Your task to perform on an android device: read, delete, or share a saved page in the chrome app Image 0: 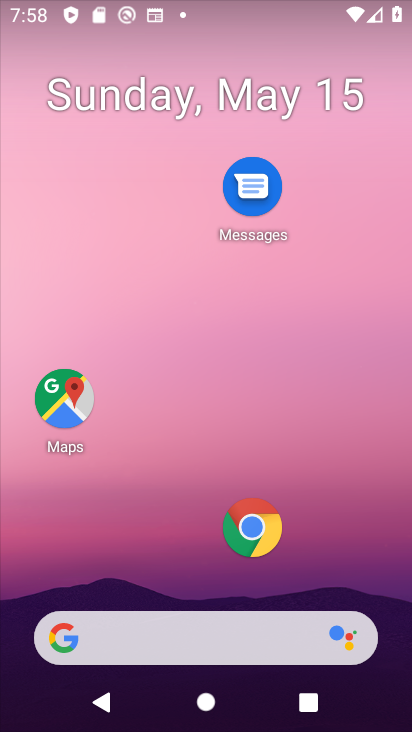
Step 0: press home button
Your task to perform on an android device: read, delete, or share a saved page in the chrome app Image 1: 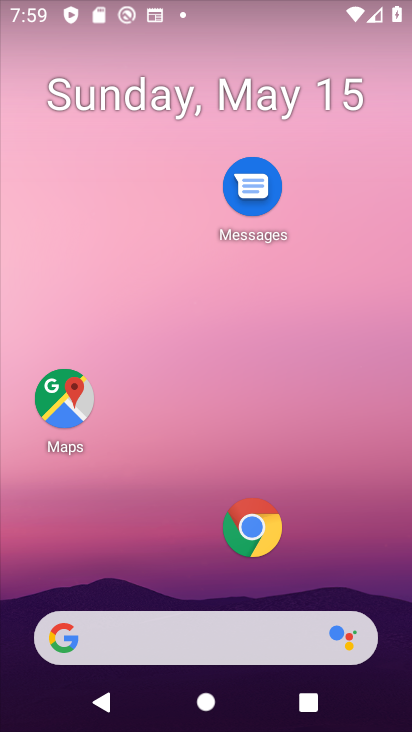
Step 1: drag from (150, 646) to (341, 180)
Your task to perform on an android device: read, delete, or share a saved page in the chrome app Image 2: 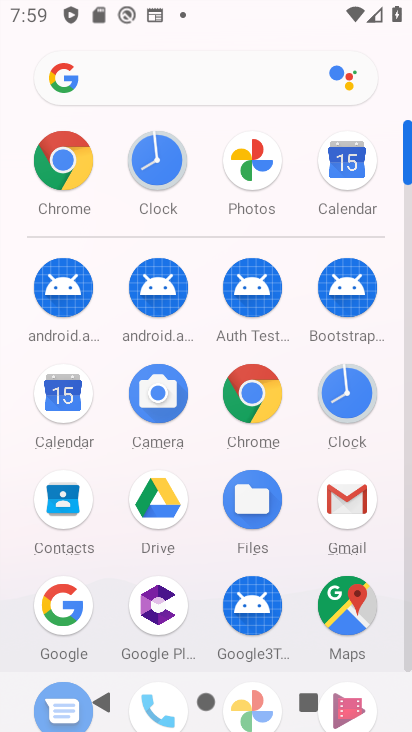
Step 2: click (67, 174)
Your task to perform on an android device: read, delete, or share a saved page in the chrome app Image 3: 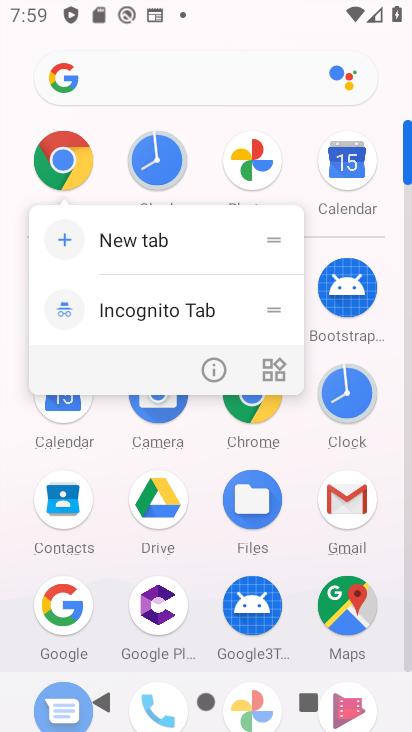
Step 3: click (61, 165)
Your task to perform on an android device: read, delete, or share a saved page in the chrome app Image 4: 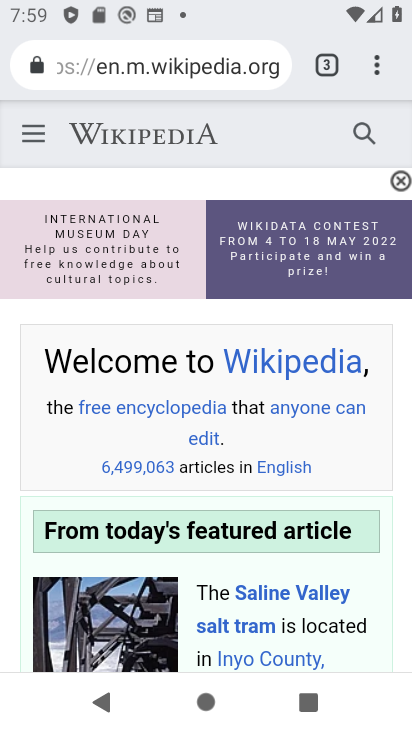
Step 4: drag from (376, 67) to (196, 440)
Your task to perform on an android device: read, delete, or share a saved page in the chrome app Image 5: 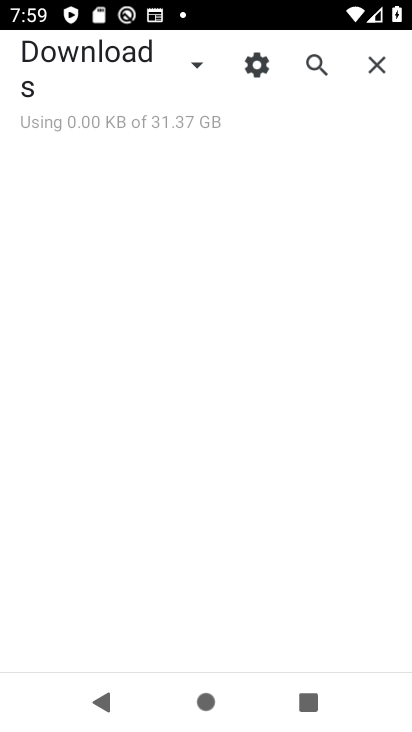
Step 5: click (172, 62)
Your task to perform on an android device: read, delete, or share a saved page in the chrome app Image 6: 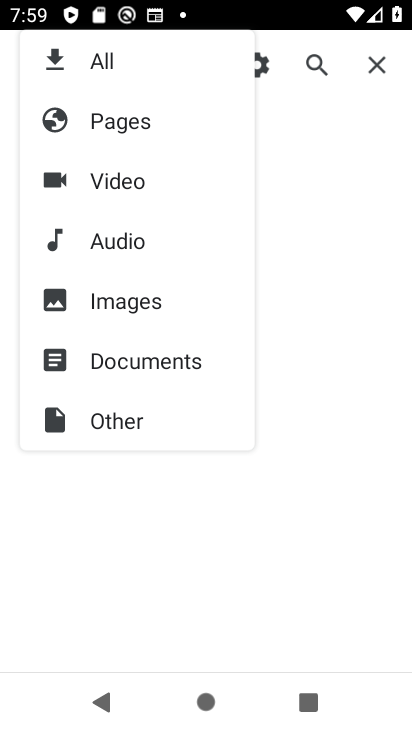
Step 6: click (128, 120)
Your task to perform on an android device: read, delete, or share a saved page in the chrome app Image 7: 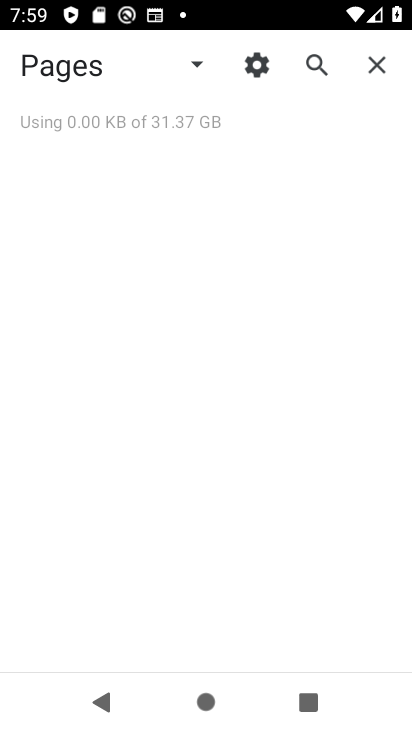
Step 7: task complete